Your task to perform on an android device: check storage Image 0: 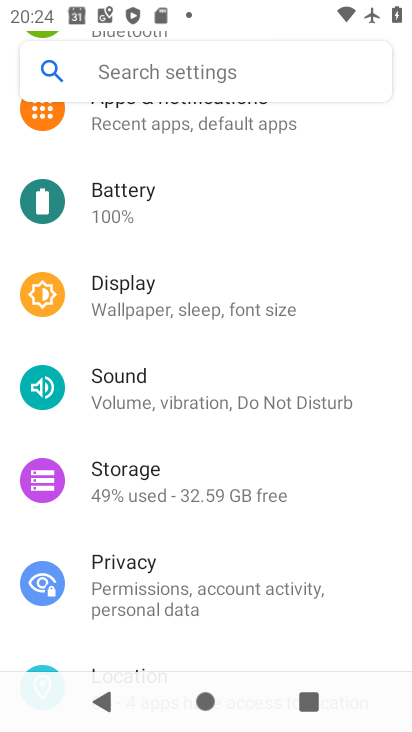
Step 0: click (194, 479)
Your task to perform on an android device: check storage Image 1: 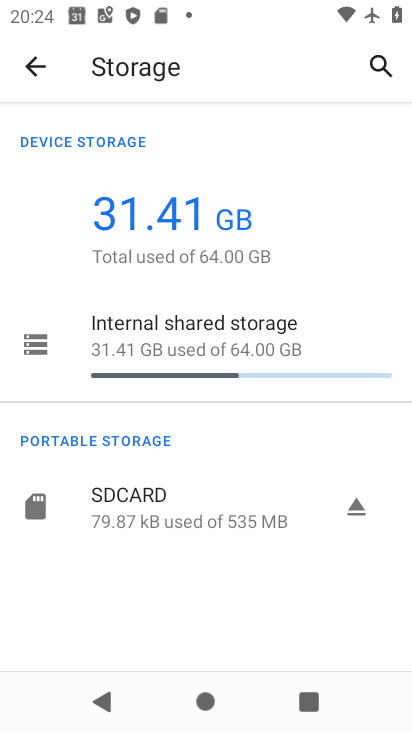
Step 1: task complete